Your task to perform on an android device: snooze an email in the gmail app Image 0: 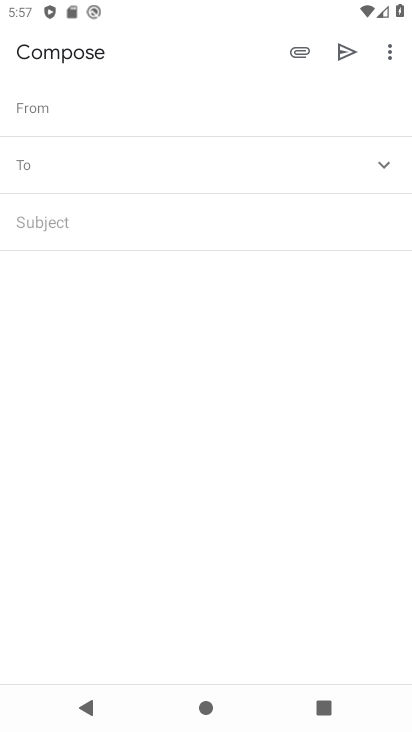
Step 0: drag from (342, 303) to (374, 79)
Your task to perform on an android device: snooze an email in the gmail app Image 1: 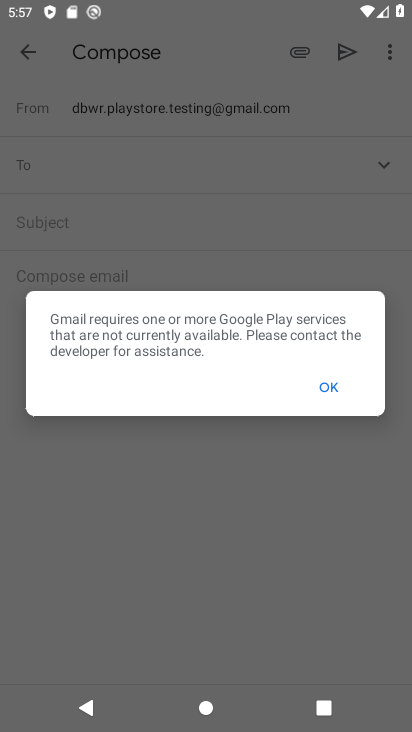
Step 1: press home button
Your task to perform on an android device: snooze an email in the gmail app Image 2: 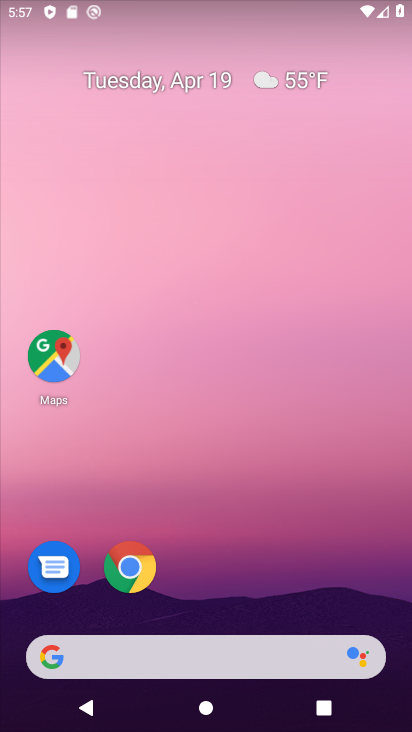
Step 2: click (303, 10)
Your task to perform on an android device: snooze an email in the gmail app Image 3: 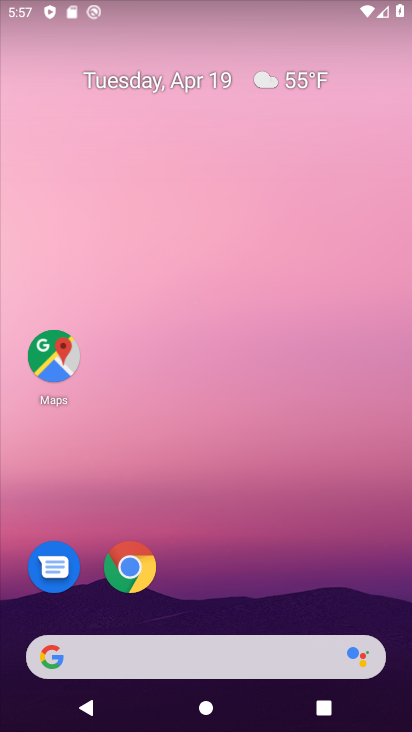
Step 3: drag from (348, 560) to (408, 54)
Your task to perform on an android device: snooze an email in the gmail app Image 4: 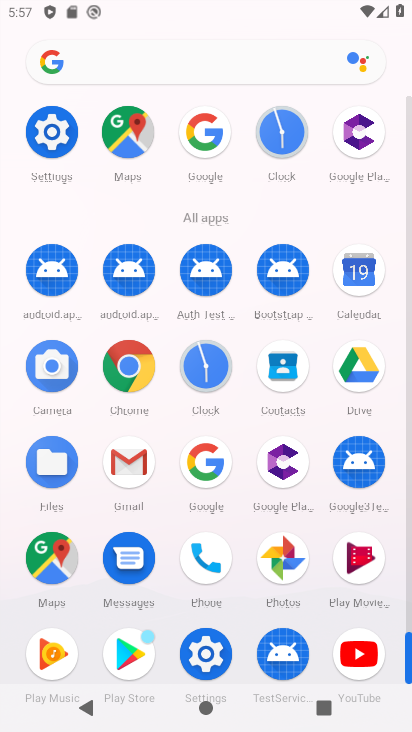
Step 4: click (113, 469)
Your task to perform on an android device: snooze an email in the gmail app Image 5: 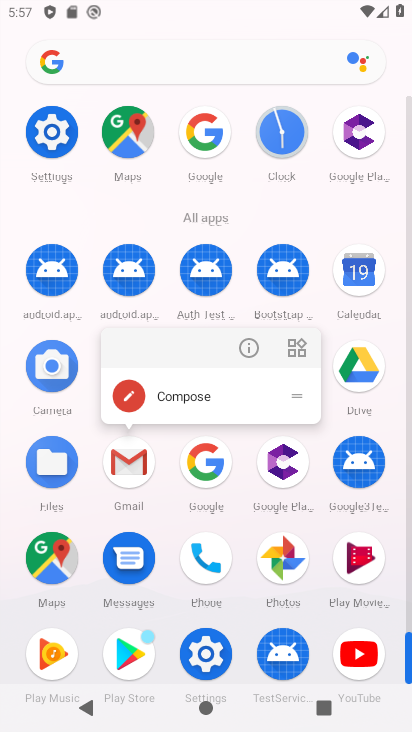
Step 5: click (131, 460)
Your task to perform on an android device: snooze an email in the gmail app Image 6: 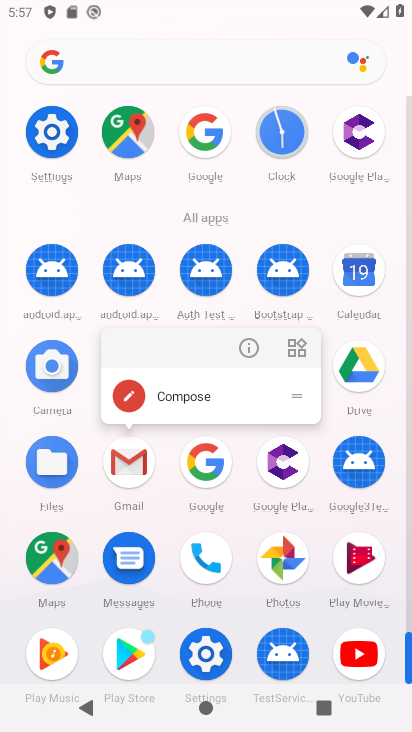
Step 6: click (127, 460)
Your task to perform on an android device: snooze an email in the gmail app Image 7: 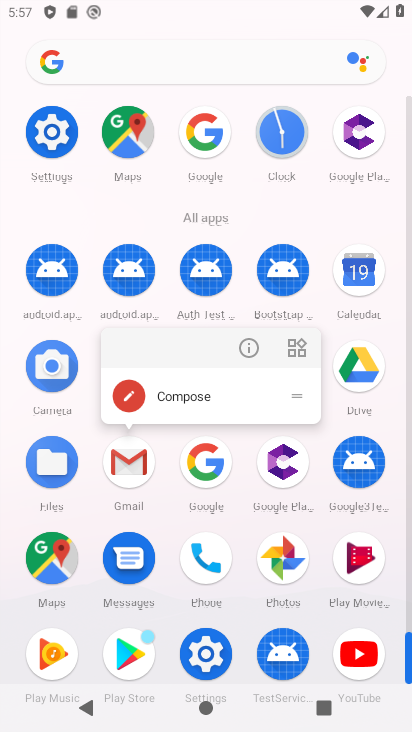
Step 7: click (127, 460)
Your task to perform on an android device: snooze an email in the gmail app Image 8: 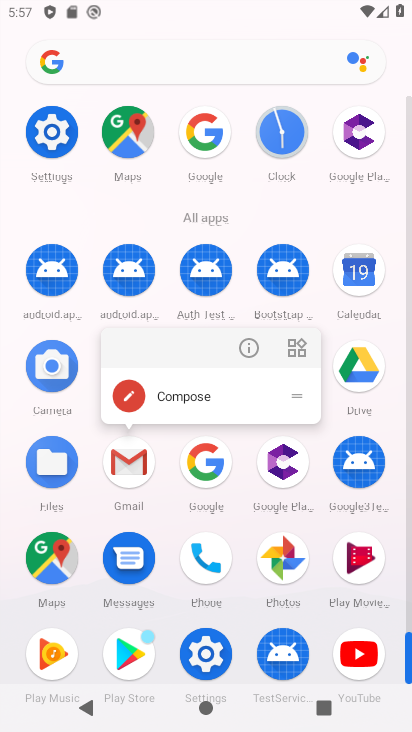
Step 8: click (127, 460)
Your task to perform on an android device: snooze an email in the gmail app Image 9: 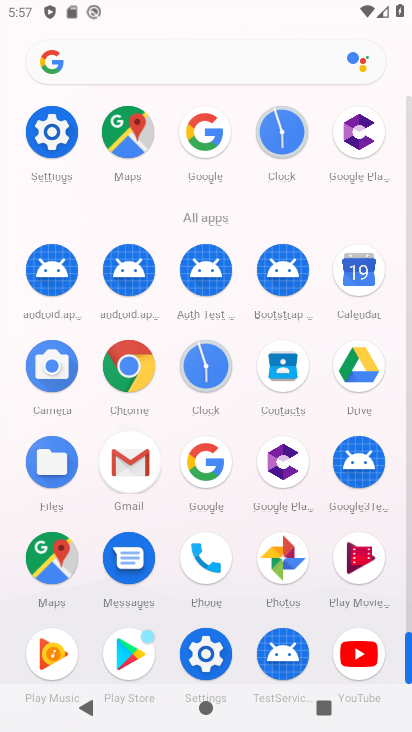
Step 9: click (127, 460)
Your task to perform on an android device: snooze an email in the gmail app Image 10: 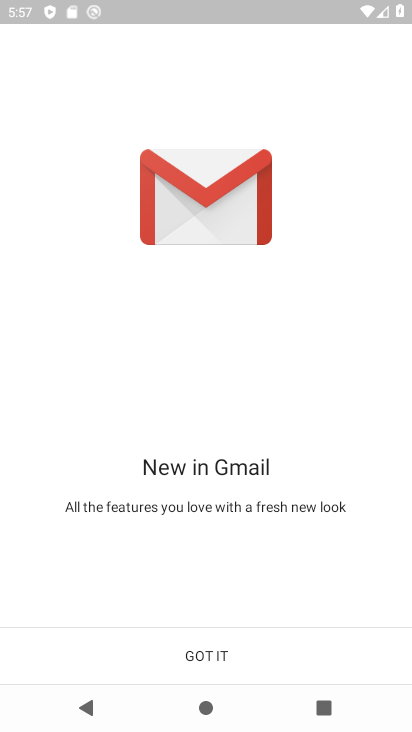
Step 10: click (216, 643)
Your task to perform on an android device: snooze an email in the gmail app Image 11: 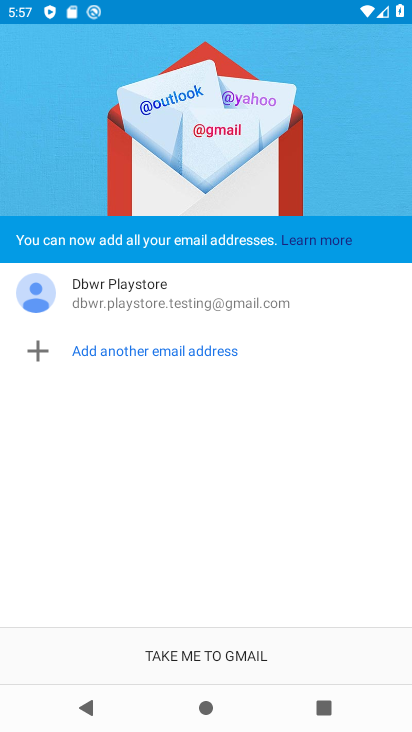
Step 11: click (203, 647)
Your task to perform on an android device: snooze an email in the gmail app Image 12: 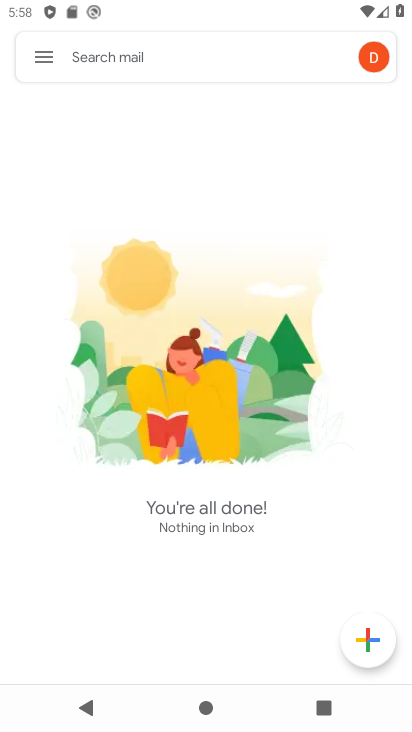
Step 12: click (47, 42)
Your task to perform on an android device: snooze an email in the gmail app Image 13: 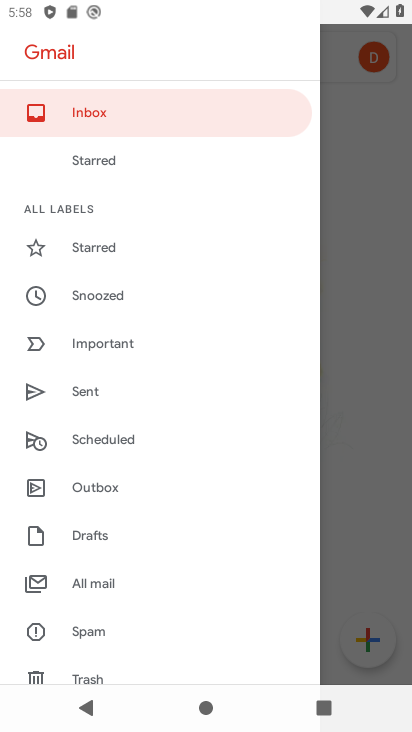
Step 13: click (102, 292)
Your task to perform on an android device: snooze an email in the gmail app Image 14: 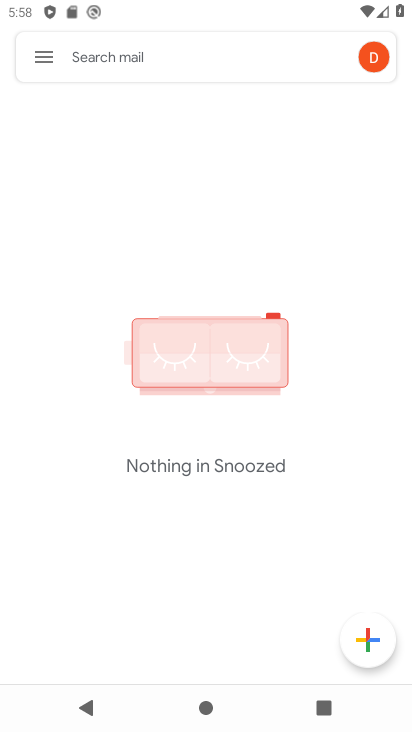
Step 14: click (39, 58)
Your task to perform on an android device: snooze an email in the gmail app Image 15: 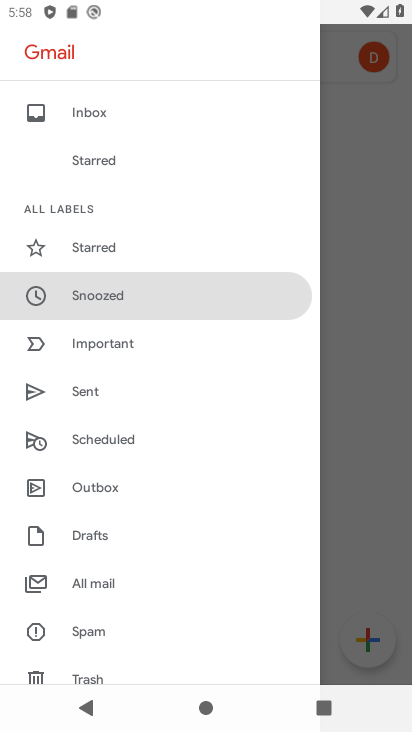
Step 15: task complete